Your task to perform on an android device: What's the weather? Image 0: 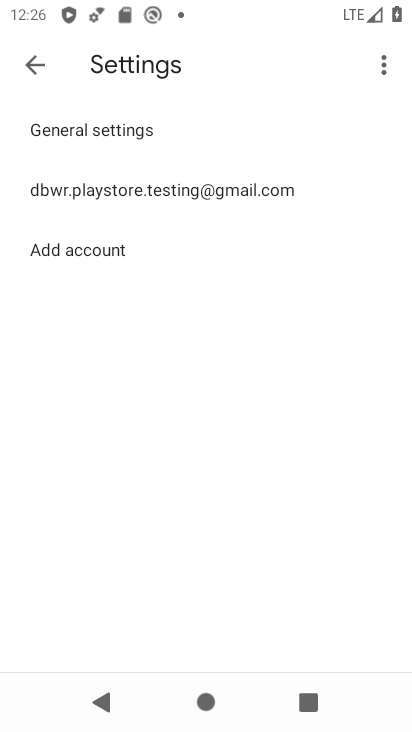
Step 0: press home button
Your task to perform on an android device: What's the weather? Image 1: 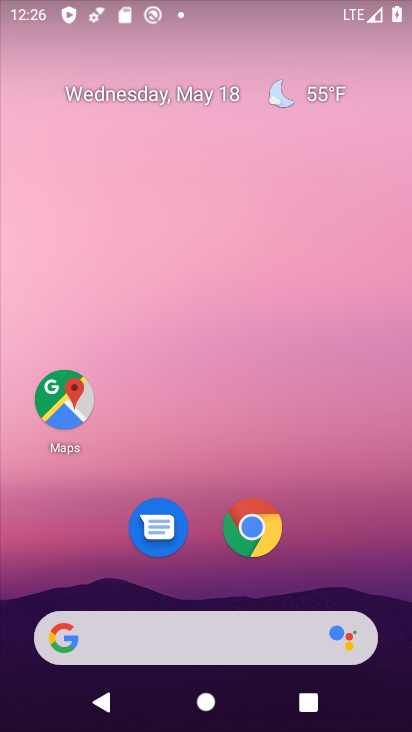
Step 1: click (334, 83)
Your task to perform on an android device: What's the weather? Image 2: 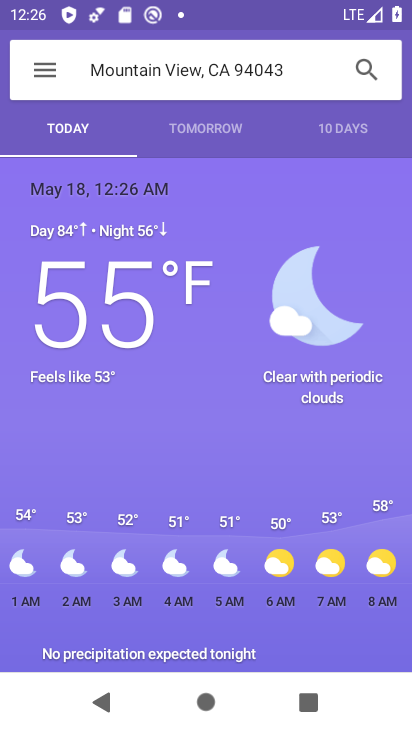
Step 2: task complete